Your task to perform on an android device: Open the Play Movies app and select the watchlist tab. Image 0: 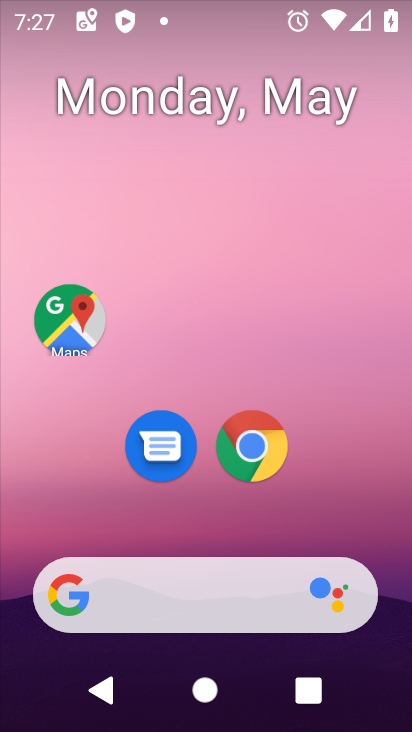
Step 0: drag from (327, 490) to (216, 88)
Your task to perform on an android device: Open the Play Movies app and select the watchlist tab. Image 1: 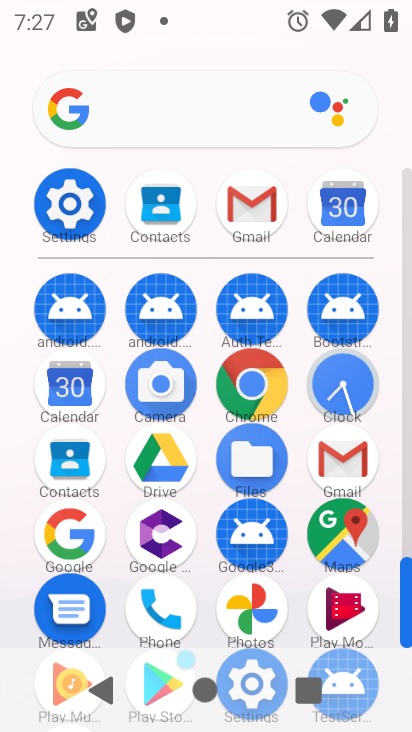
Step 1: drag from (214, 583) to (165, 160)
Your task to perform on an android device: Open the Play Movies app and select the watchlist tab. Image 2: 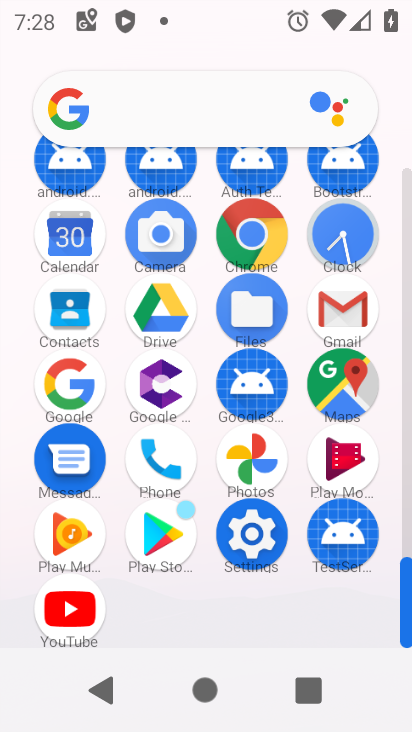
Step 2: click (344, 462)
Your task to perform on an android device: Open the Play Movies app and select the watchlist tab. Image 3: 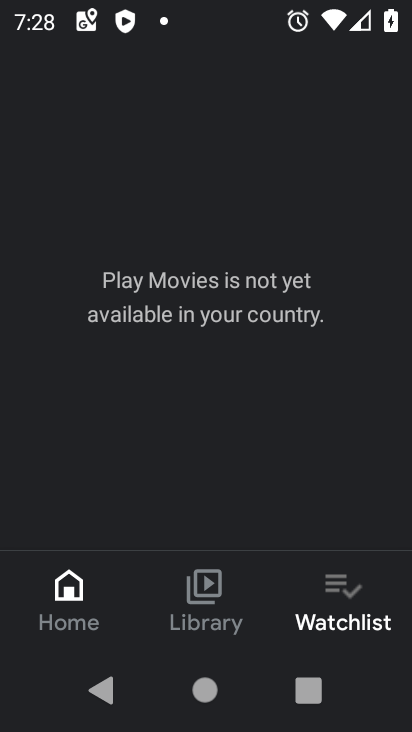
Step 3: click (339, 574)
Your task to perform on an android device: Open the Play Movies app and select the watchlist tab. Image 4: 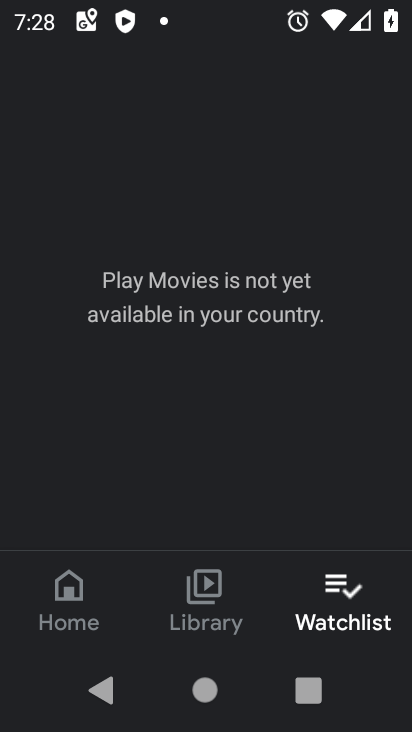
Step 4: task complete